Your task to perform on an android device: open chrome and create a bookmark for the current page Image 0: 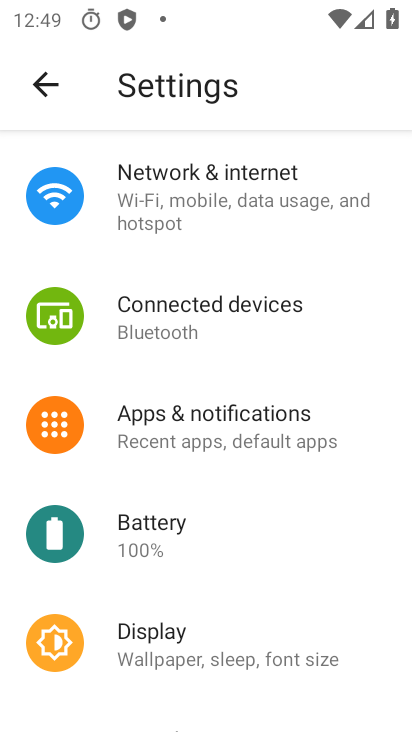
Step 0: press home button
Your task to perform on an android device: open chrome and create a bookmark for the current page Image 1: 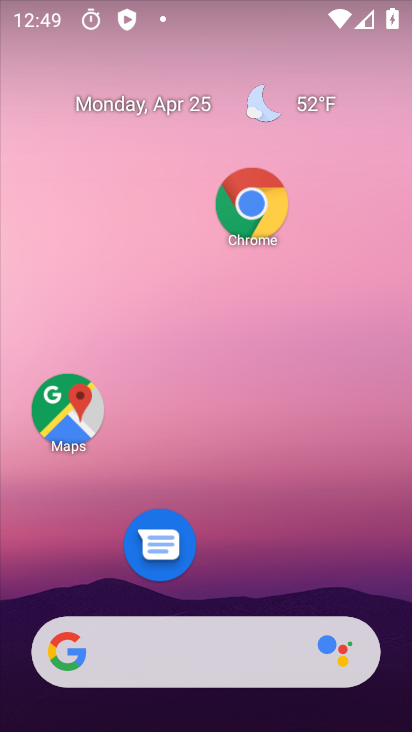
Step 1: drag from (300, 574) to (354, 146)
Your task to perform on an android device: open chrome and create a bookmark for the current page Image 2: 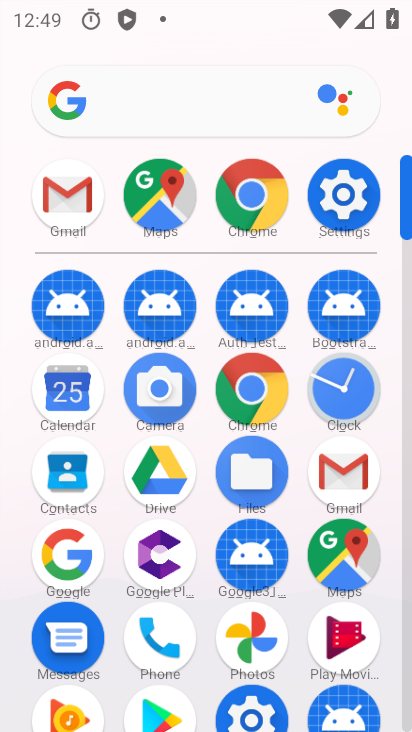
Step 2: click (239, 182)
Your task to perform on an android device: open chrome and create a bookmark for the current page Image 3: 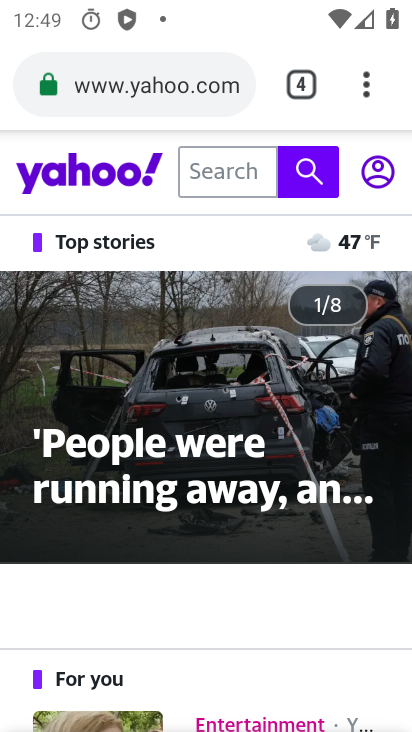
Step 3: click (365, 88)
Your task to perform on an android device: open chrome and create a bookmark for the current page Image 4: 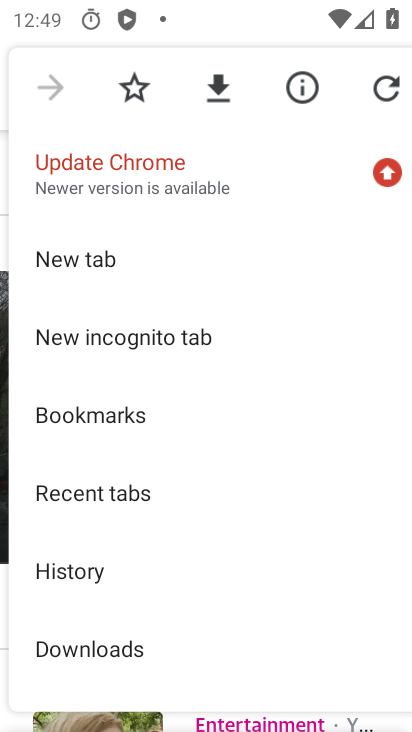
Step 4: click (177, 431)
Your task to perform on an android device: open chrome and create a bookmark for the current page Image 5: 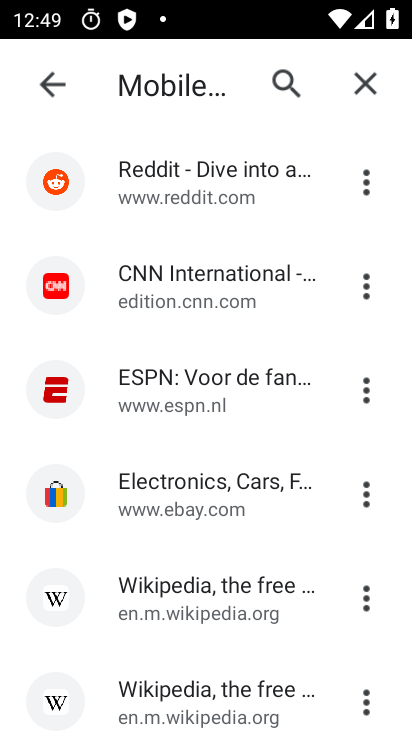
Step 5: click (367, 181)
Your task to perform on an android device: open chrome and create a bookmark for the current page Image 6: 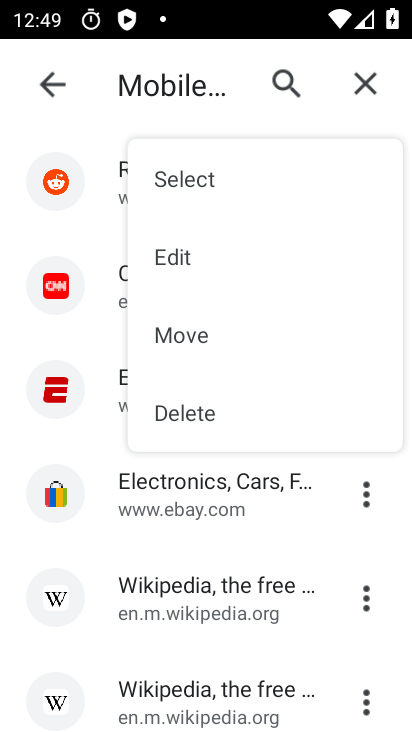
Step 6: click (233, 263)
Your task to perform on an android device: open chrome and create a bookmark for the current page Image 7: 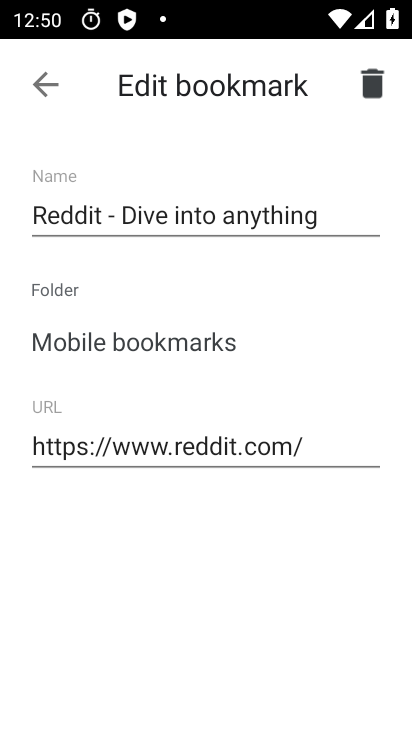
Step 7: task complete